Your task to perform on an android device: make emails show in primary in the gmail app Image 0: 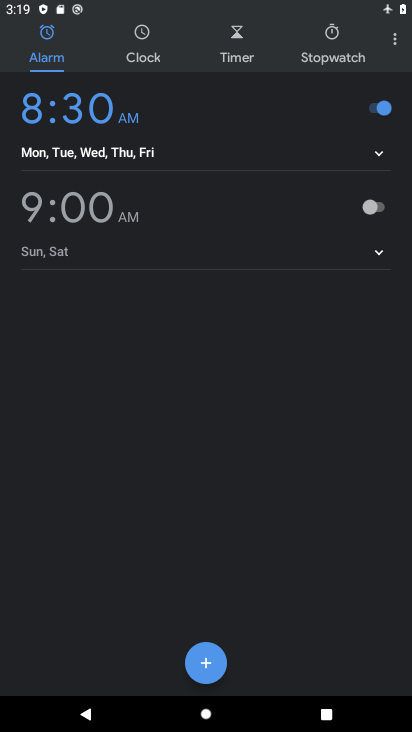
Step 0: press home button
Your task to perform on an android device: make emails show in primary in the gmail app Image 1: 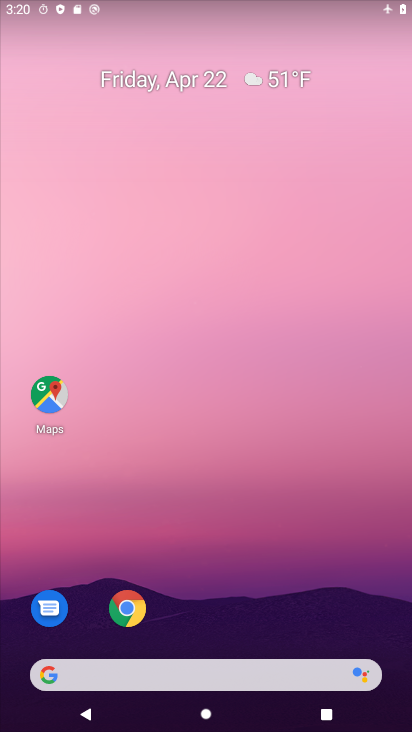
Step 1: drag from (265, 553) to (267, 32)
Your task to perform on an android device: make emails show in primary in the gmail app Image 2: 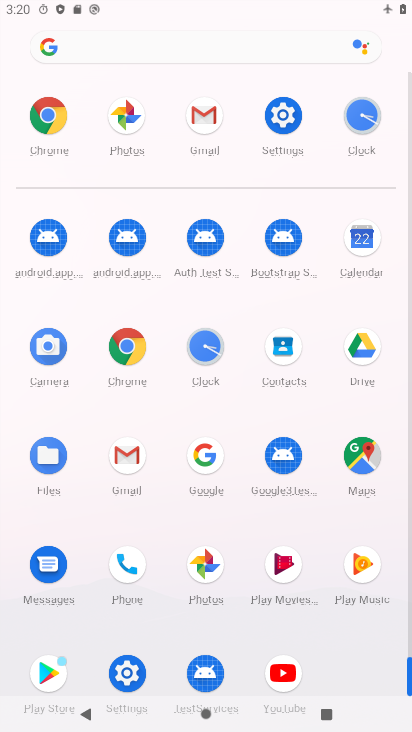
Step 2: click (208, 109)
Your task to perform on an android device: make emails show in primary in the gmail app Image 3: 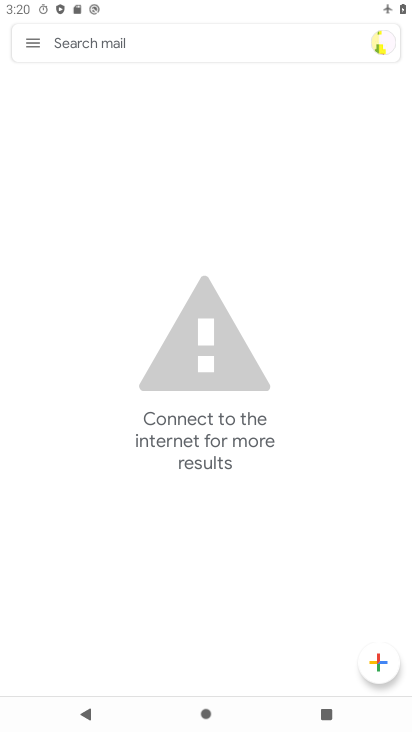
Step 3: drag from (290, 21) to (309, 538)
Your task to perform on an android device: make emails show in primary in the gmail app Image 4: 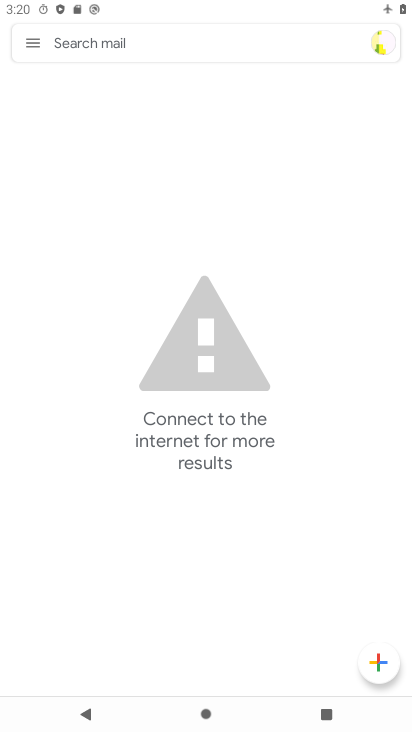
Step 4: click (36, 41)
Your task to perform on an android device: make emails show in primary in the gmail app Image 5: 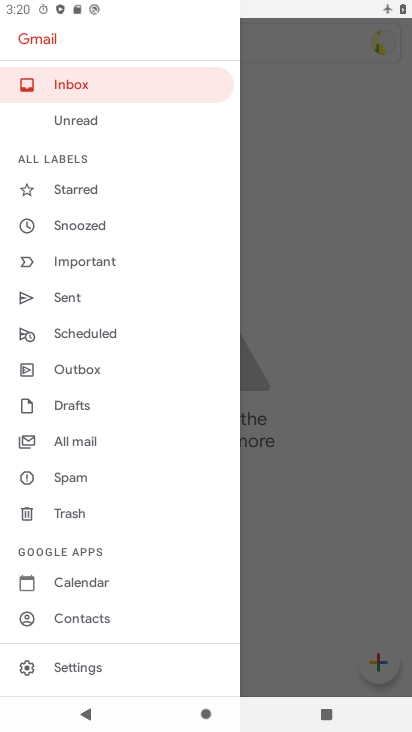
Step 5: click (89, 669)
Your task to perform on an android device: make emails show in primary in the gmail app Image 6: 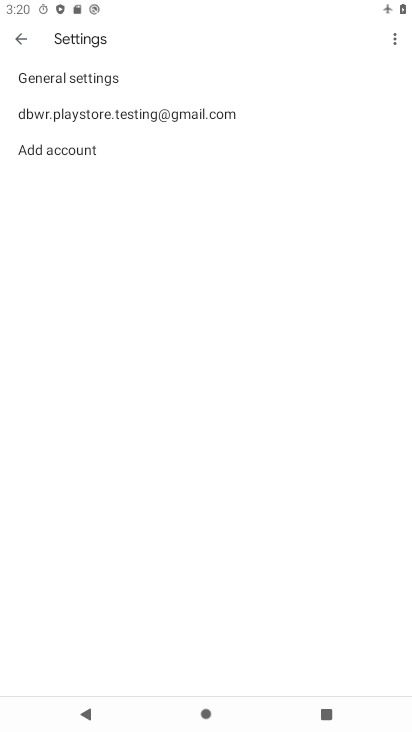
Step 6: click (139, 111)
Your task to perform on an android device: make emails show in primary in the gmail app Image 7: 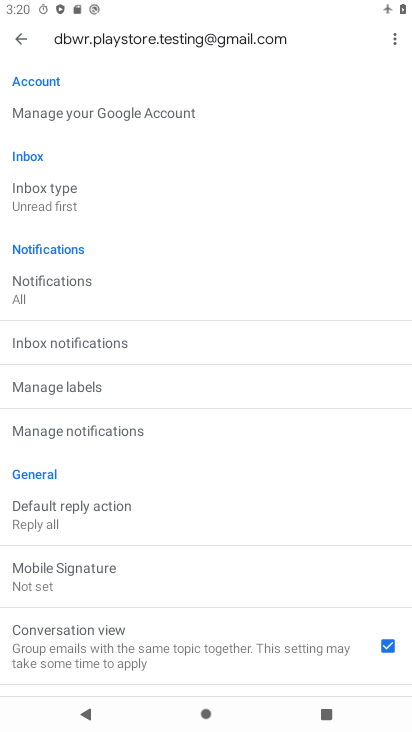
Step 7: click (56, 195)
Your task to perform on an android device: make emails show in primary in the gmail app Image 8: 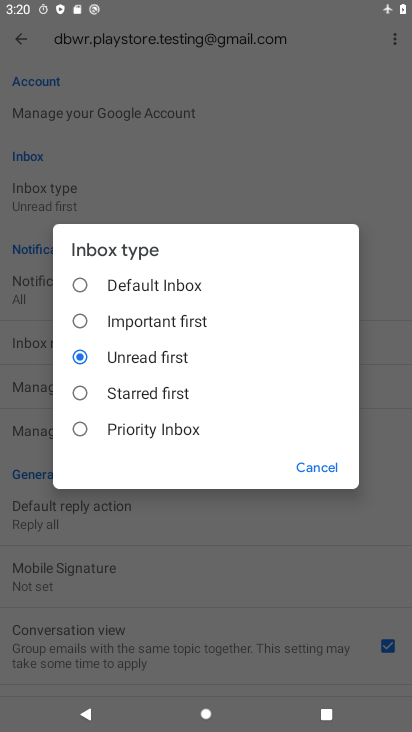
Step 8: click (80, 279)
Your task to perform on an android device: make emails show in primary in the gmail app Image 9: 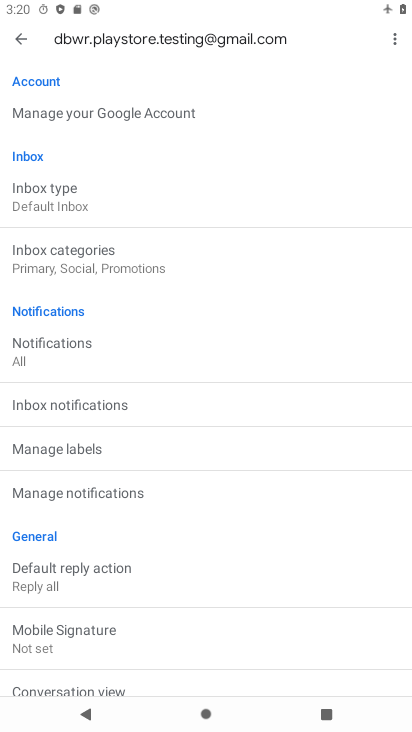
Step 9: click (79, 270)
Your task to perform on an android device: make emails show in primary in the gmail app Image 10: 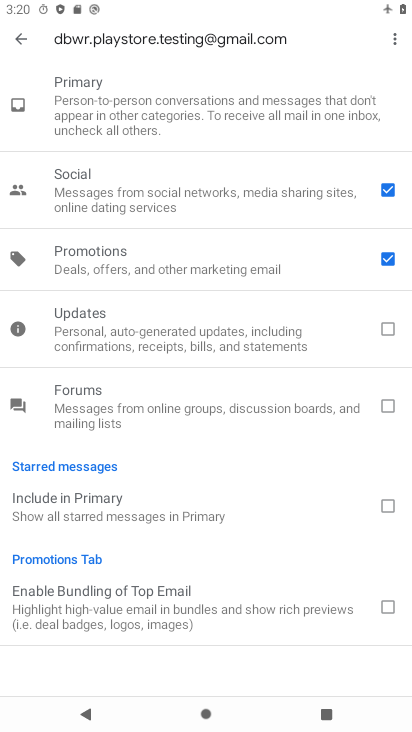
Step 10: click (384, 259)
Your task to perform on an android device: make emails show in primary in the gmail app Image 11: 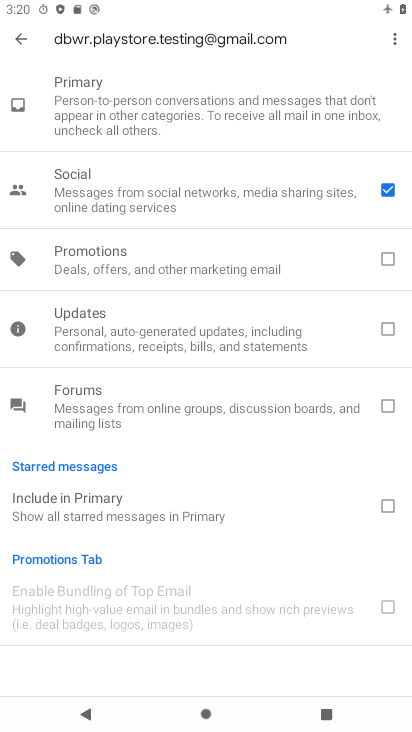
Step 11: click (388, 190)
Your task to perform on an android device: make emails show in primary in the gmail app Image 12: 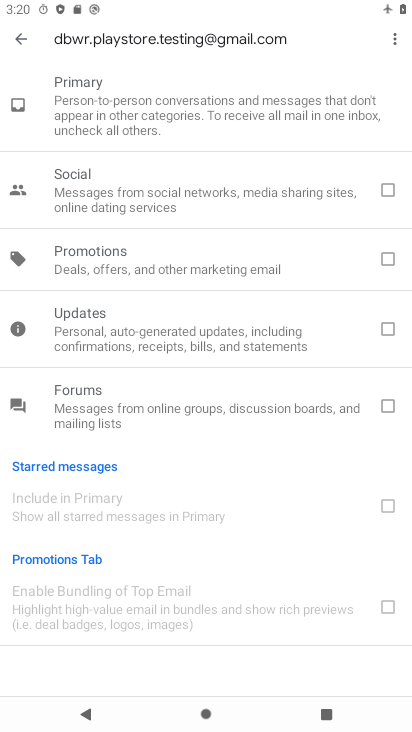
Step 12: task complete